Your task to perform on an android device: Open the web browser Image 0: 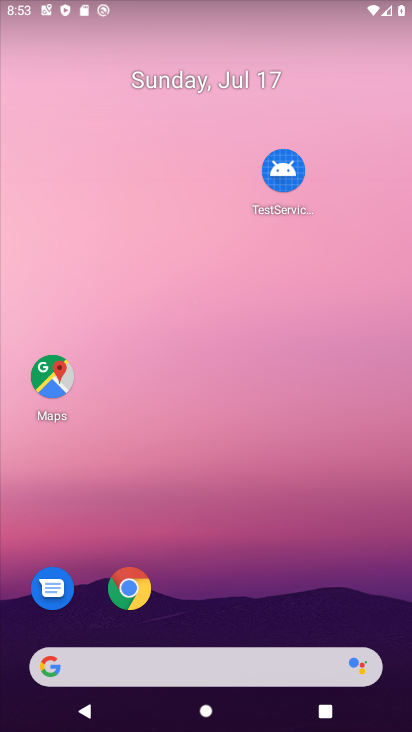
Step 0: drag from (273, 529) to (210, 140)
Your task to perform on an android device: Open the web browser Image 1: 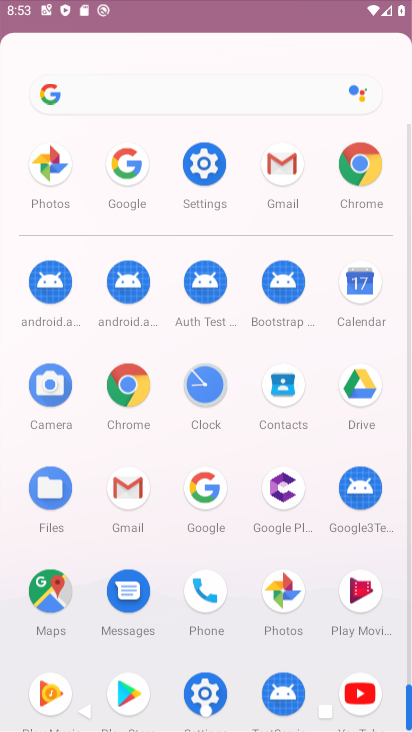
Step 1: drag from (213, 466) to (274, 138)
Your task to perform on an android device: Open the web browser Image 2: 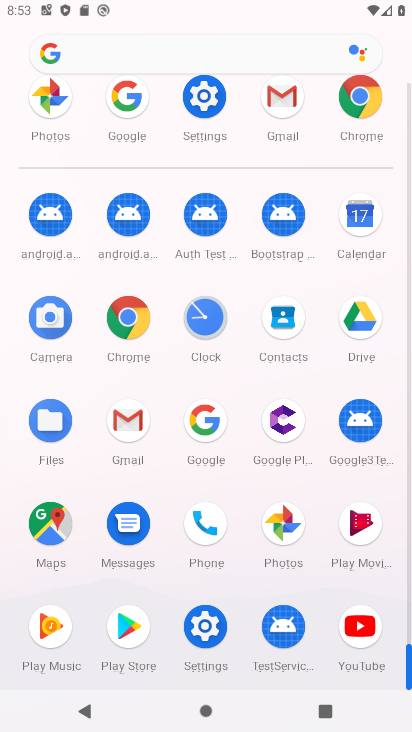
Step 2: click (361, 132)
Your task to perform on an android device: Open the web browser Image 3: 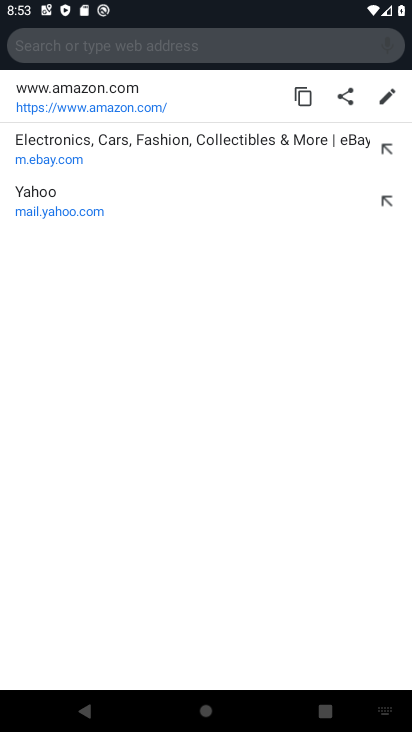
Step 3: task complete